Your task to perform on an android device: Open the calendar app, open the side menu, and click the "Day" option Image 0: 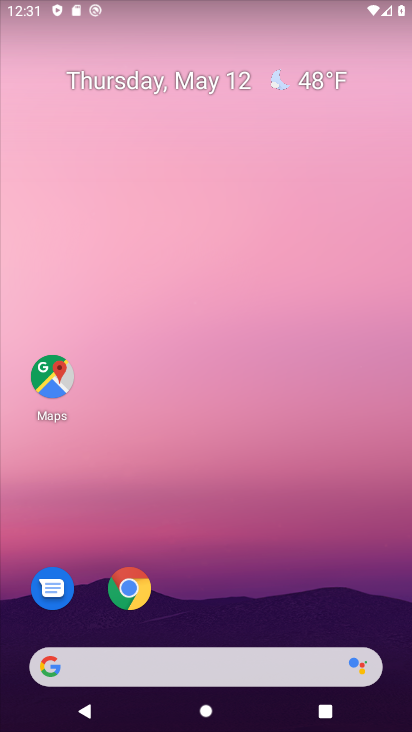
Step 0: drag from (344, 641) to (170, 282)
Your task to perform on an android device: Open the calendar app, open the side menu, and click the "Day" option Image 1: 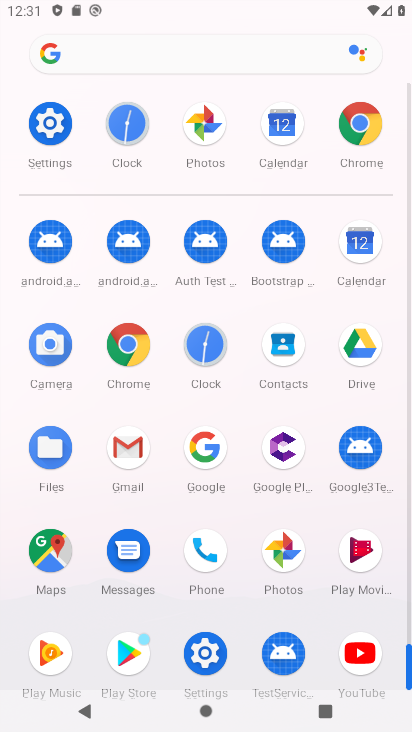
Step 1: click (369, 246)
Your task to perform on an android device: Open the calendar app, open the side menu, and click the "Day" option Image 2: 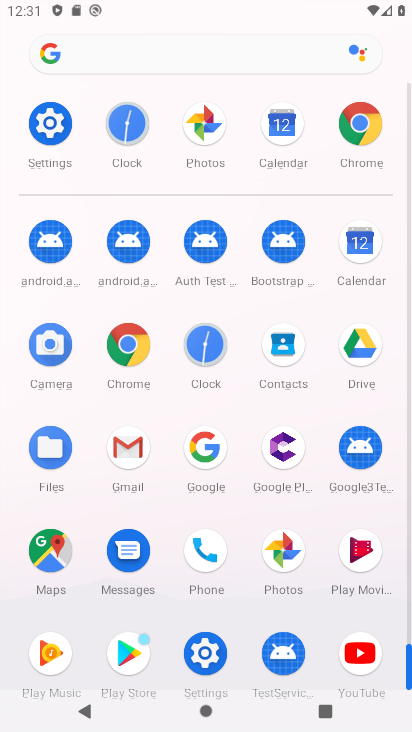
Step 2: click (369, 246)
Your task to perform on an android device: Open the calendar app, open the side menu, and click the "Day" option Image 3: 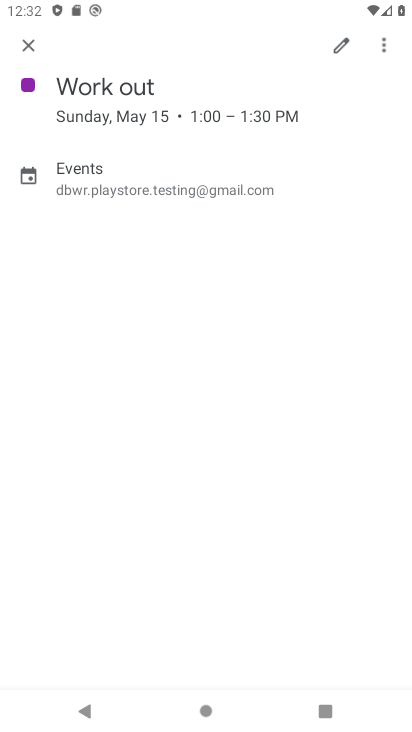
Step 3: click (10, 55)
Your task to perform on an android device: Open the calendar app, open the side menu, and click the "Day" option Image 4: 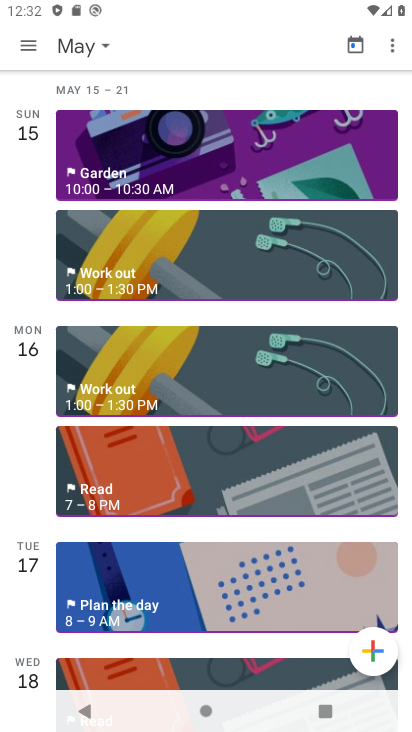
Step 4: click (31, 50)
Your task to perform on an android device: Open the calendar app, open the side menu, and click the "Day" option Image 5: 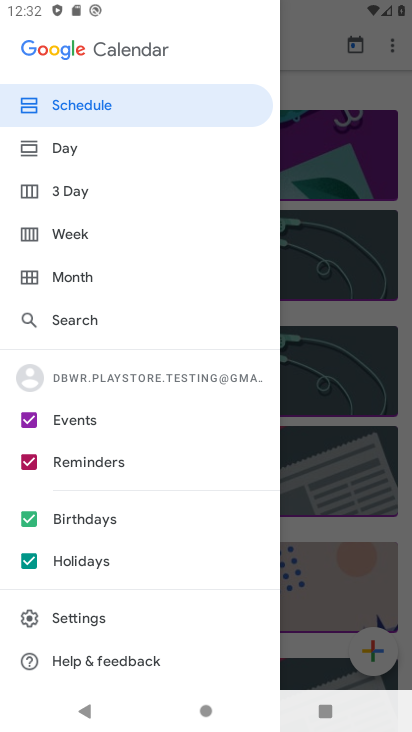
Step 5: click (73, 147)
Your task to perform on an android device: Open the calendar app, open the side menu, and click the "Day" option Image 6: 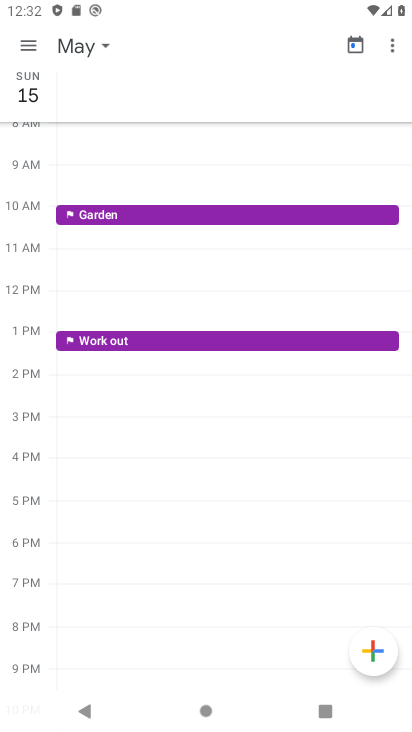
Step 6: drag from (162, 394) to (173, 86)
Your task to perform on an android device: Open the calendar app, open the side menu, and click the "Day" option Image 7: 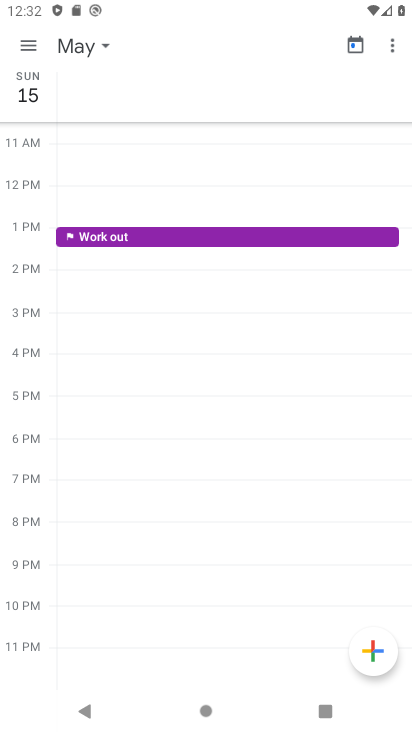
Step 7: click (19, 48)
Your task to perform on an android device: Open the calendar app, open the side menu, and click the "Day" option Image 8: 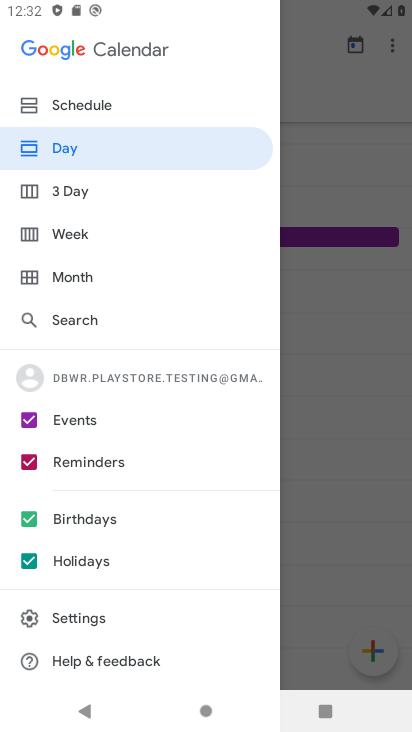
Step 8: click (95, 101)
Your task to perform on an android device: Open the calendar app, open the side menu, and click the "Day" option Image 9: 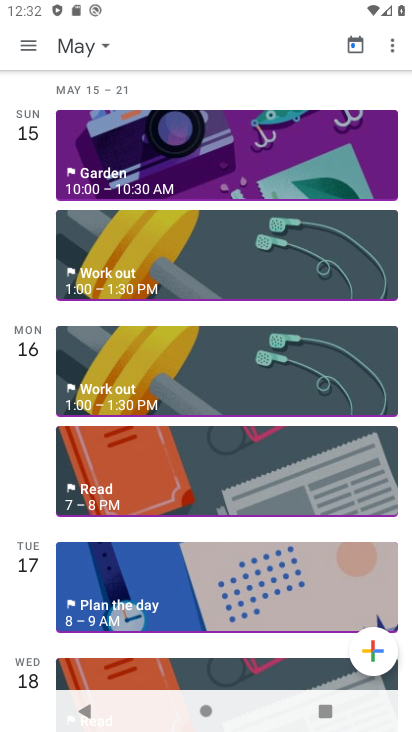
Step 9: click (27, 58)
Your task to perform on an android device: Open the calendar app, open the side menu, and click the "Day" option Image 10: 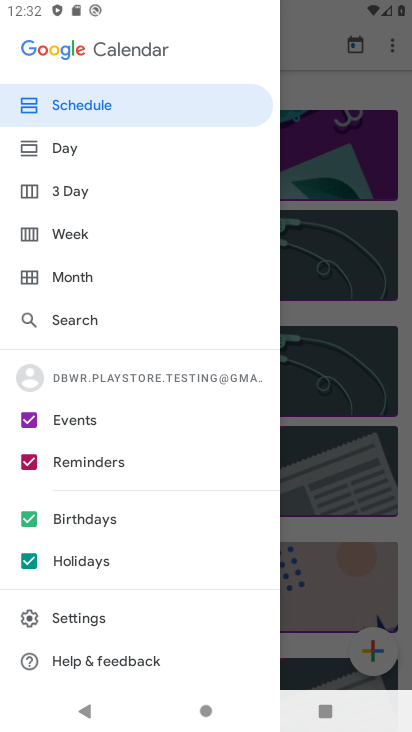
Step 10: click (64, 146)
Your task to perform on an android device: Open the calendar app, open the side menu, and click the "Day" option Image 11: 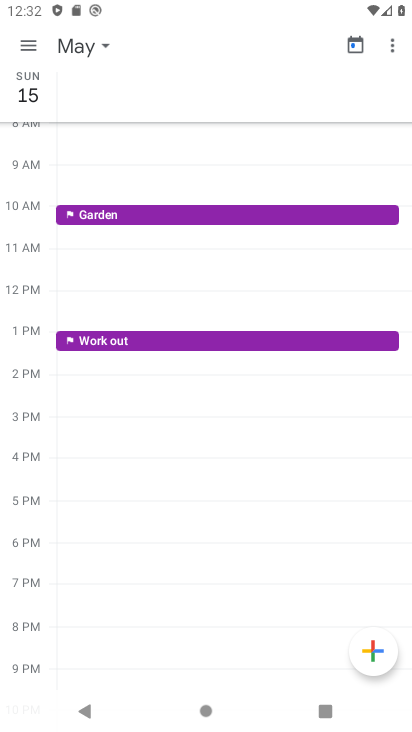
Step 11: task complete